Your task to perform on an android device: toggle location history Image 0: 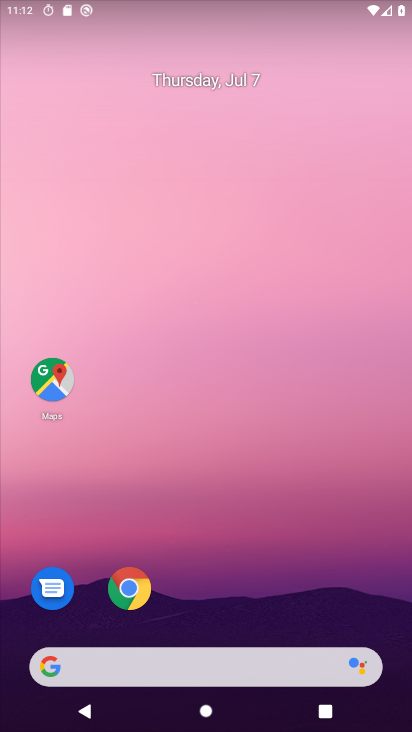
Step 0: press home button
Your task to perform on an android device: toggle location history Image 1: 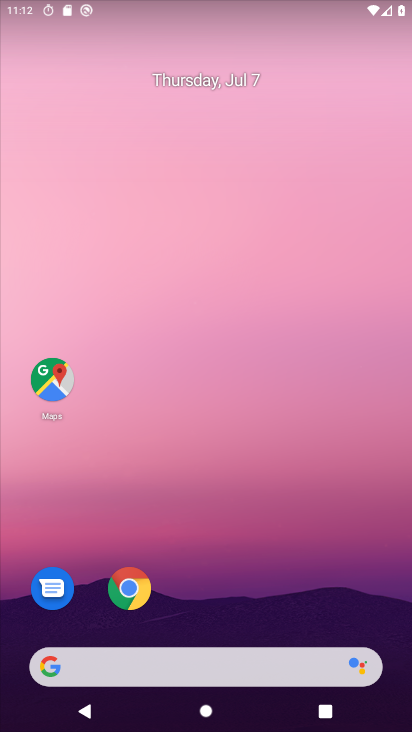
Step 1: drag from (178, 641) to (299, 11)
Your task to perform on an android device: toggle location history Image 2: 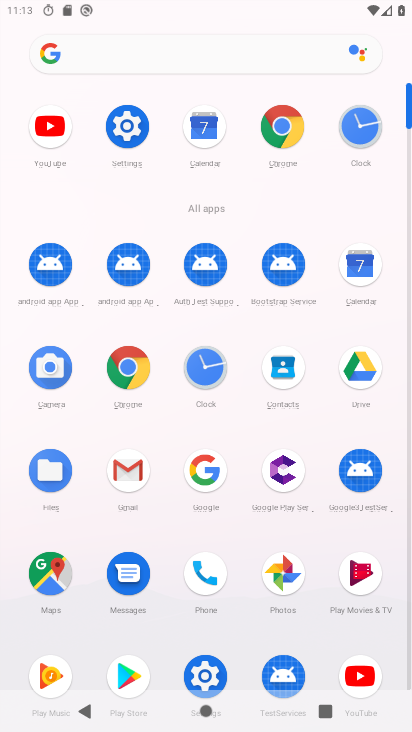
Step 2: click (132, 129)
Your task to perform on an android device: toggle location history Image 3: 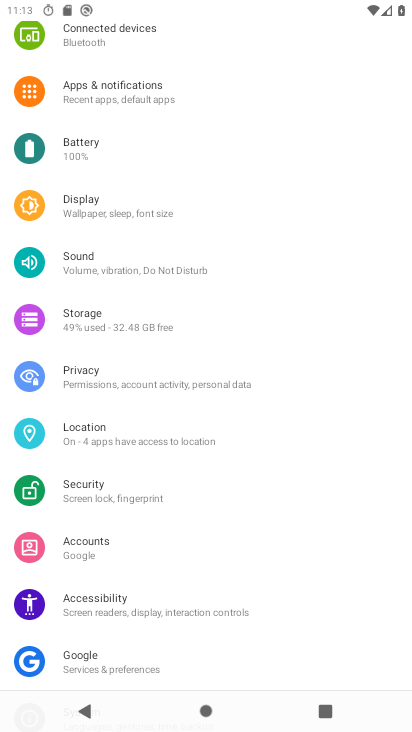
Step 3: click (112, 427)
Your task to perform on an android device: toggle location history Image 4: 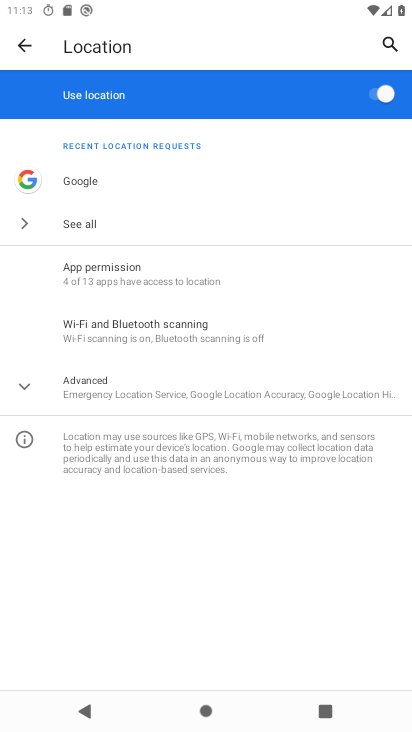
Step 4: click (114, 386)
Your task to perform on an android device: toggle location history Image 5: 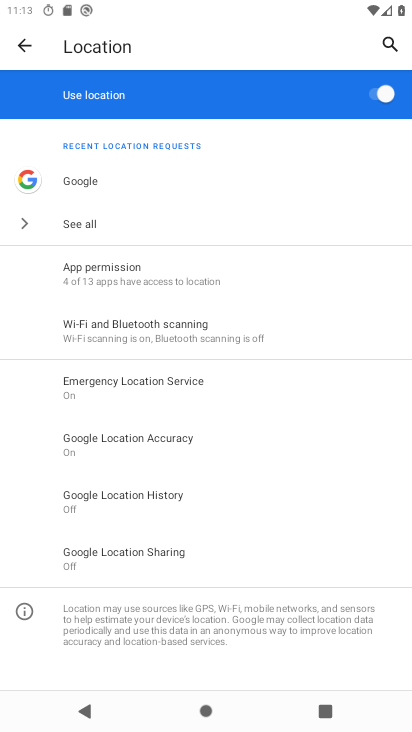
Step 5: click (163, 498)
Your task to perform on an android device: toggle location history Image 6: 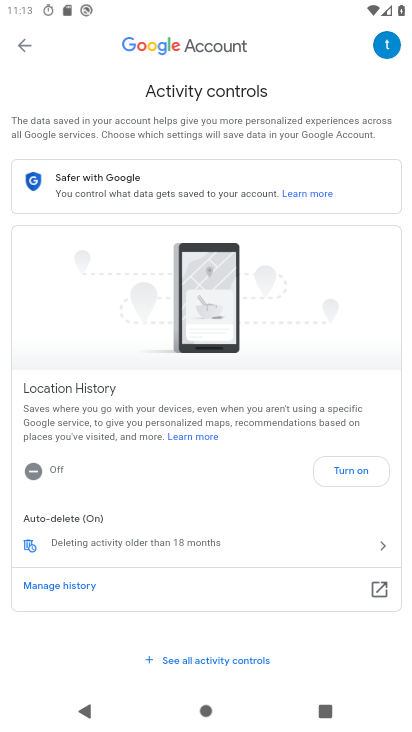
Step 6: click (355, 473)
Your task to perform on an android device: toggle location history Image 7: 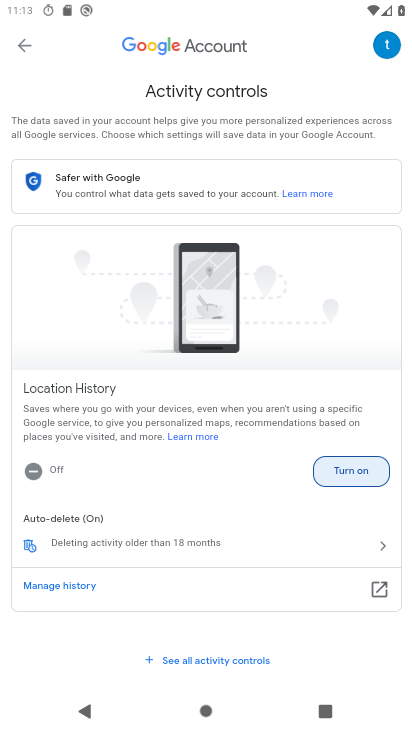
Step 7: click (353, 468)
Your task to perform on an android device: toggle location history Image 8: 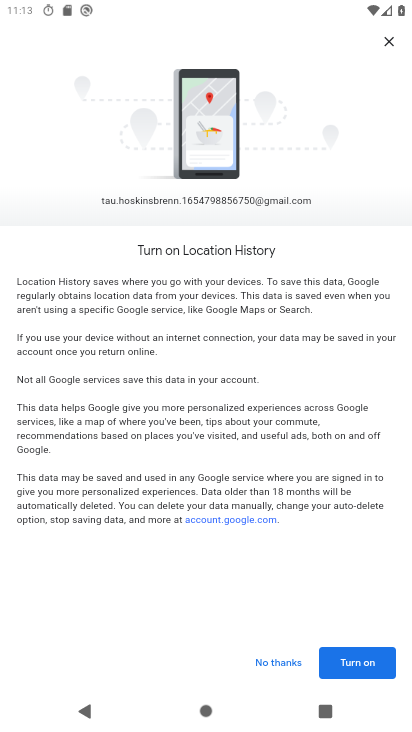
Step 8: click (364, 662)
Your task to perform on an android device: toggle location history Image 9: 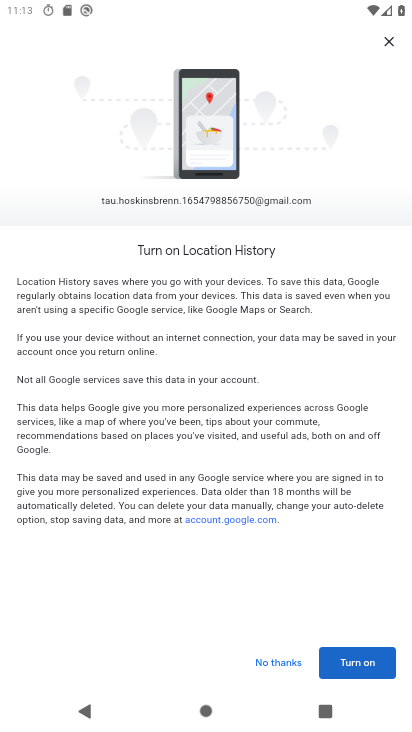
Step 9: click (356, 663)
Your task to perform on an android device: toggle location history Image 10: 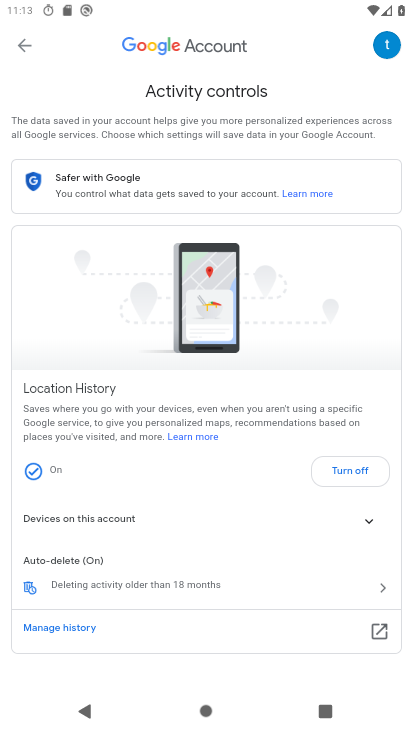
Step 10: task complete